Your task to perform on an android device: Open the stopwatch Image 0: 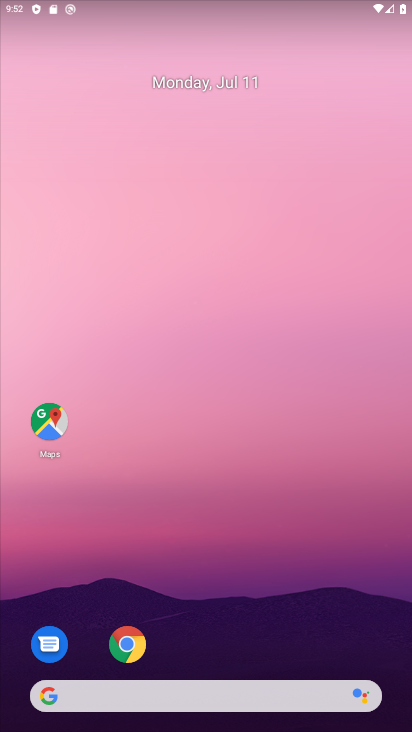
Step 0: drag from (258, 589) to (277, 84)
Your task to perform on an android device: Open the stopwatch Image 1: 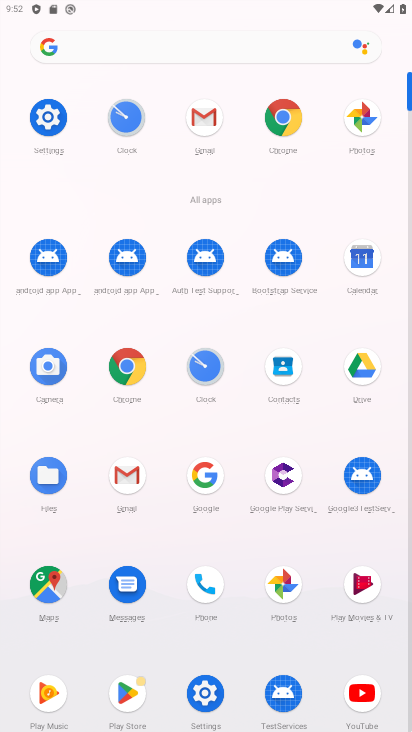
Step 1: click (202, 360)
Your task to perform on an android device: Open the stopwatch Image 2: 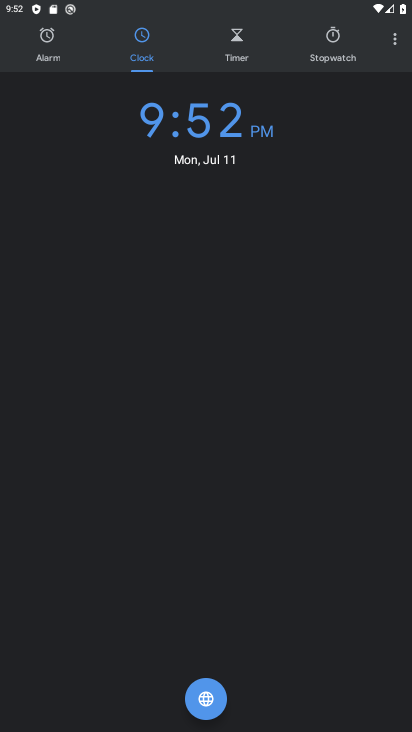
Step 2: click (326, 57)
Your task to perform on an android device: Open the stopwatch Image 3: 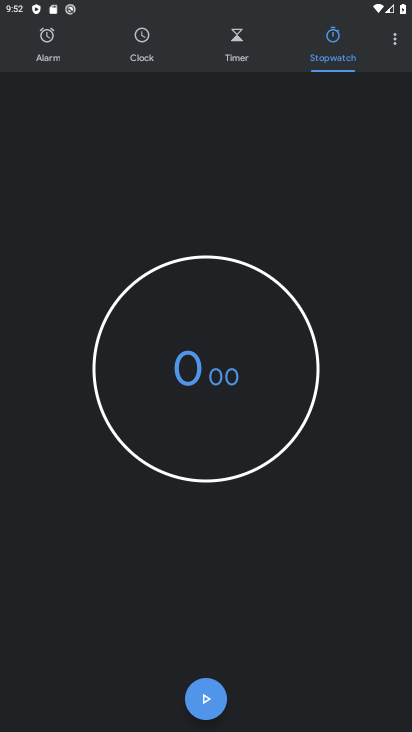
Step 3: click (213, 701)
Your task to perform on an android device: Open the stopwatch Image 4: 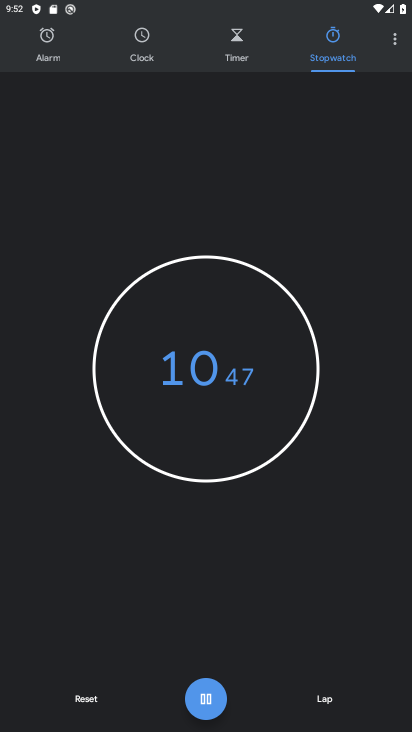
Step 4: task complete